Your task to perform on an android device: Open CNN.com Image 0: 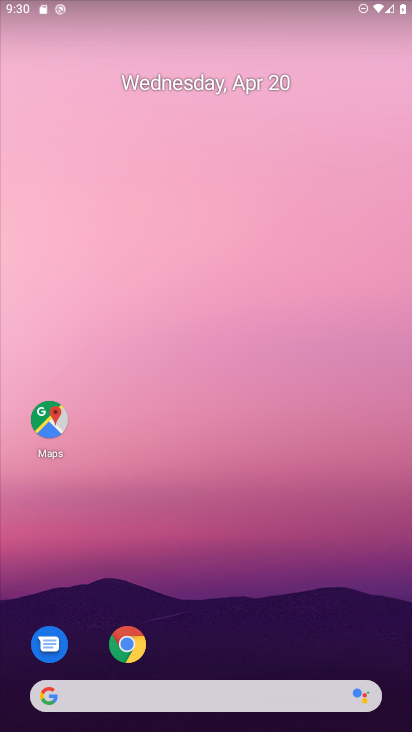
Step 0: drag from (319, 632) to (201, 25)
Your task to perform on an android device: Open CNN.com Image 1: 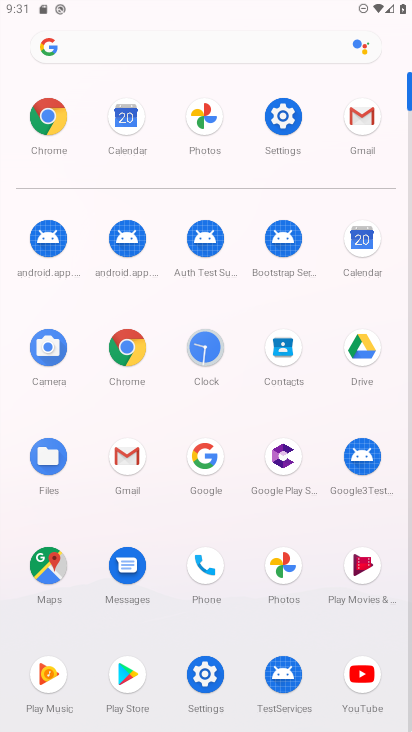
Step 1: click (135, 354)
Your task to perform on an android device: Open CNN.com Image 2: 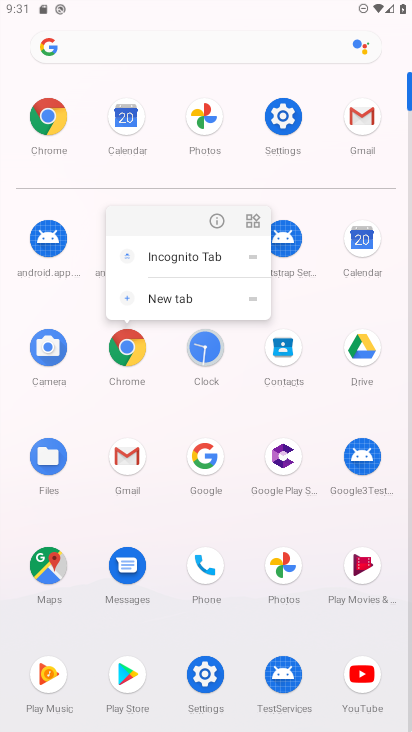
Step 2: click (126, 353)
Your task to perform on an android device: Open CNN.com Image 3: 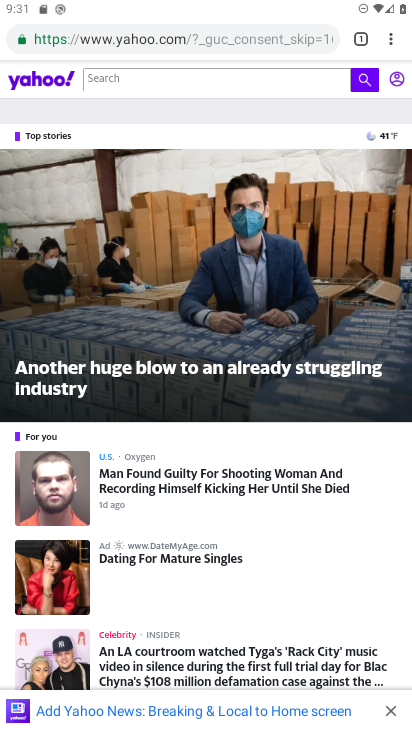
Step 3: press back button
Your task to perform on an android device: Open CNN.com Image 4: 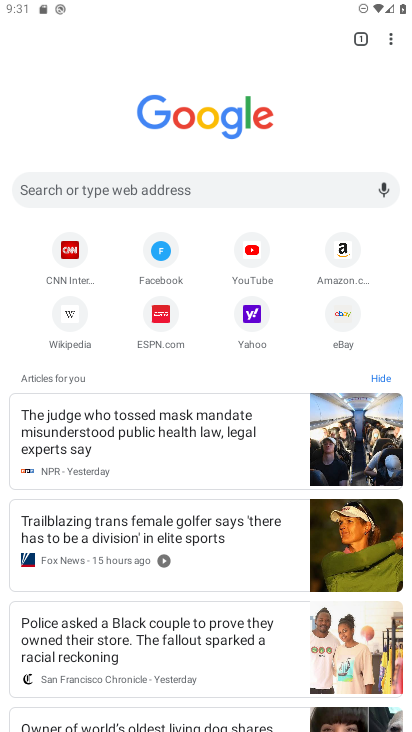
Step 4: click (227, 185)
Your task to perform on an android device: Open CNN.com Image 5: 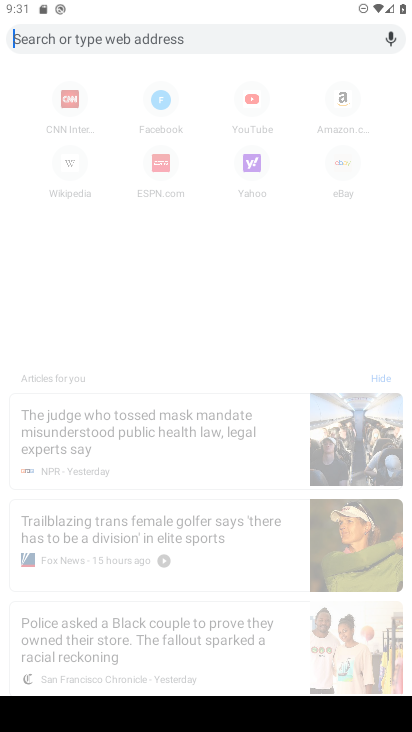
Step 5: type "cnn.com"
Your task to perform on an android device: Open CNN.com Image 6: 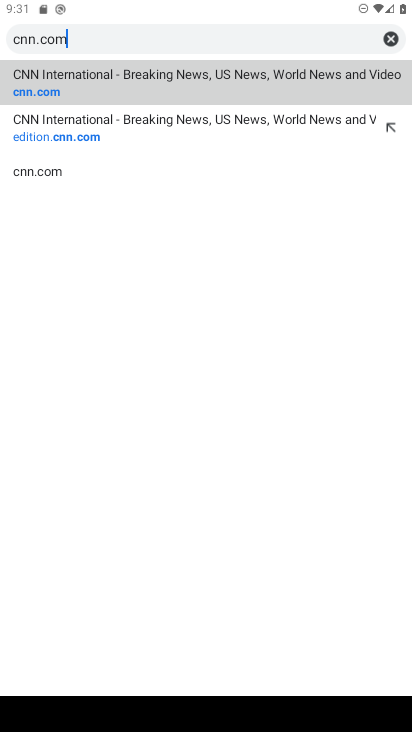
Step 6: click (179, 75)
Your task to perform on an android device: Open CNN.com Image 7: 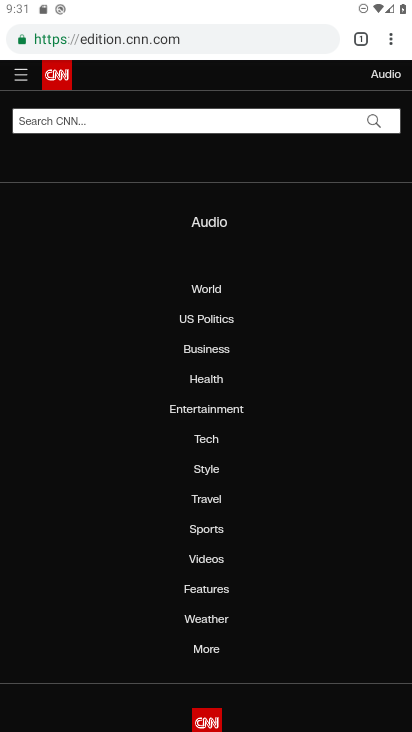
Step 7: task complete